Your task to perform on an android device: Go to Amazon Image 0: 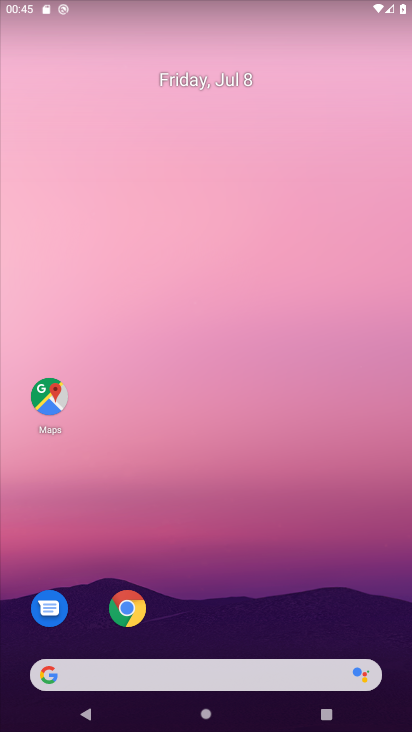
Step 0: click (133, 597)
Your task to perform on an android device: Go to Amazon Image 1: 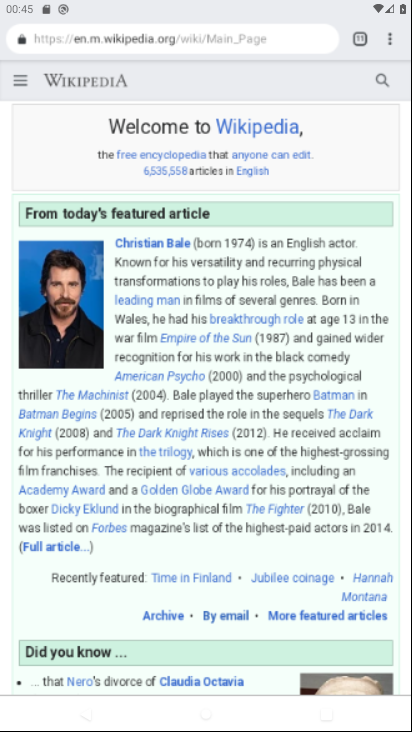
Step 1: click (403, 25)
Your task to perform on an android device: Go to Amazon Image 2: 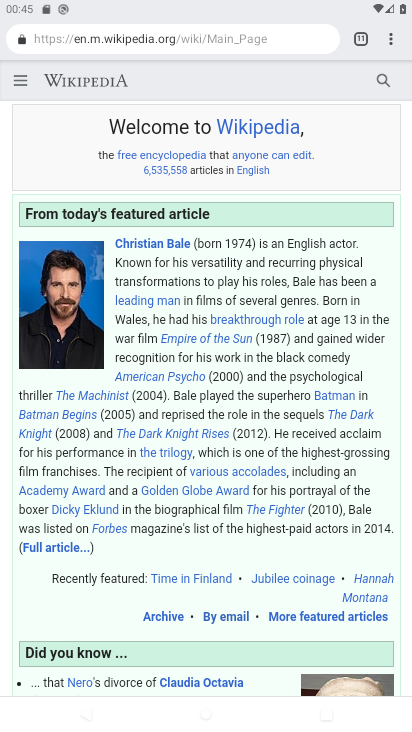
Step 2: click (391, 35)
Your task to perform on an android device: Go to Amazon Image 3: 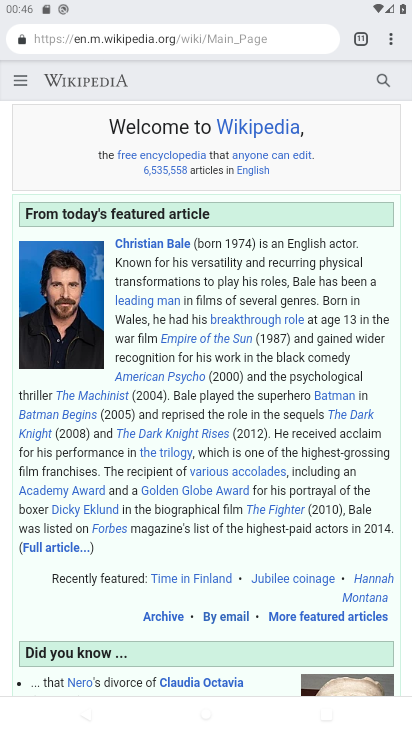
Step 3: click (395, 35)
Your task to perform on an android device: Go to Amazon Image 4: 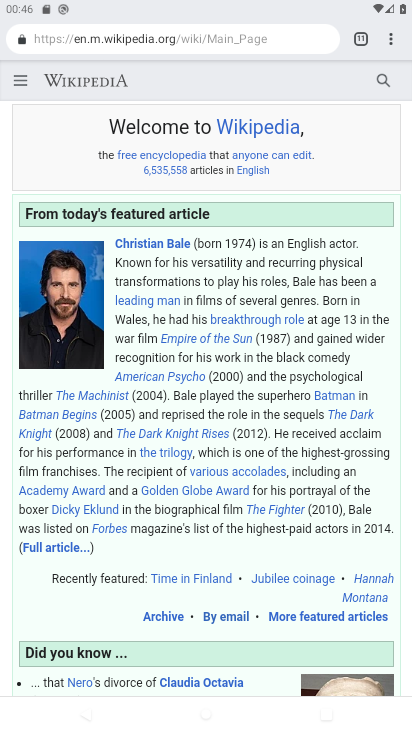
Step 4: click (384, 31)
Your task to perform on an android device: Go to Amazon Image 5: 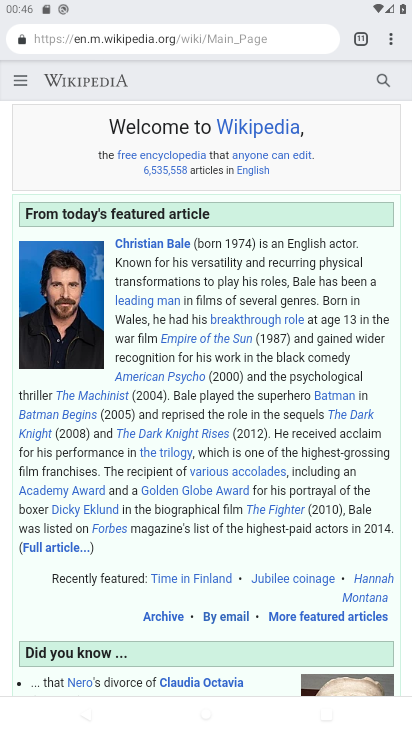
Step 5: click (373, 41)
Your task to perform on an android device: Go to Amazon Image 6: 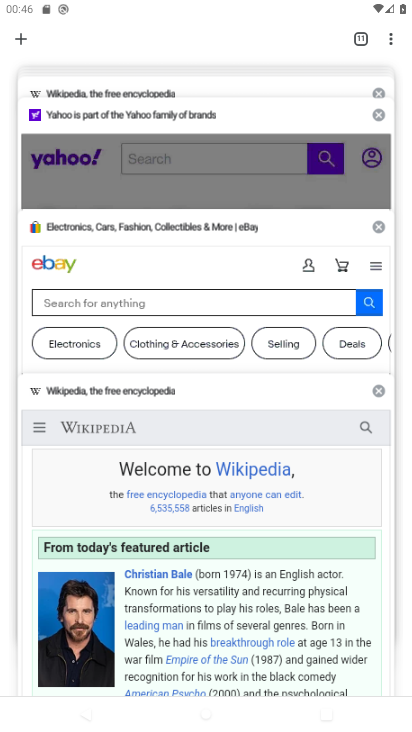
Step 6: click (32, 42)
Your task to perform on an android device: Go to Amazon Image 7: 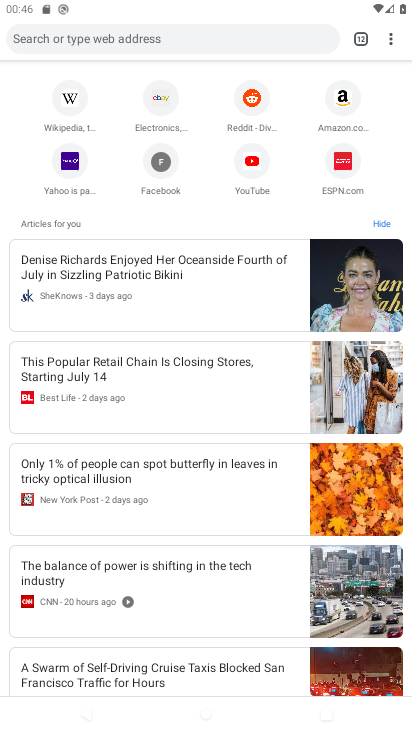
Step 7: click (341, 91)
Your task to perform on an android device: Go to Amazon Image 8: 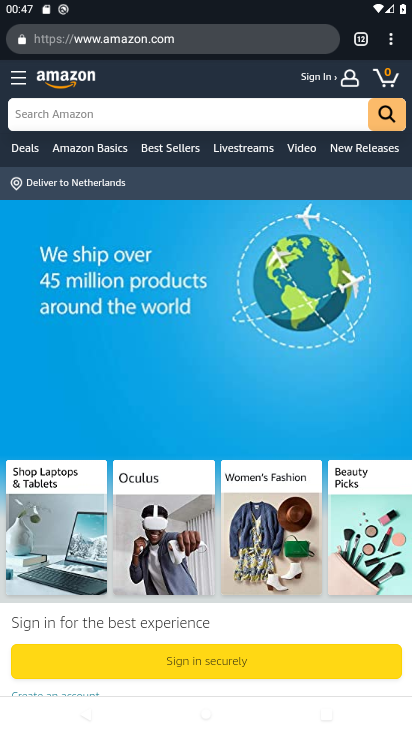
Step 8: task complete